Your task to perform on an android device: Open calendar and show me the fourth week of next month Image 0: 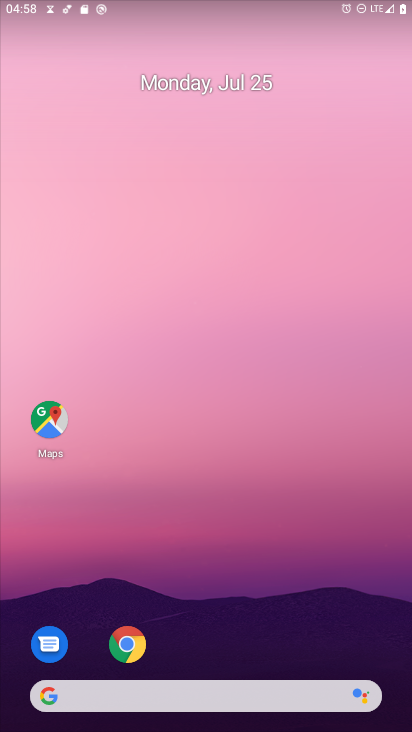
Step 0: press home button
Your task to perform on an android device: Open calendar and show me the fourth week of next month Image 1: 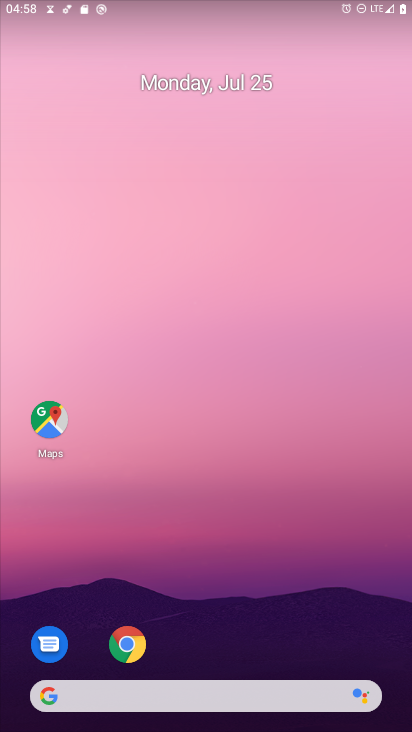
Step 1: drag from (271, 624) to (250, 59)
Your task to perform on an android device: Open calendar and show me the fourth week of next month Image 2: 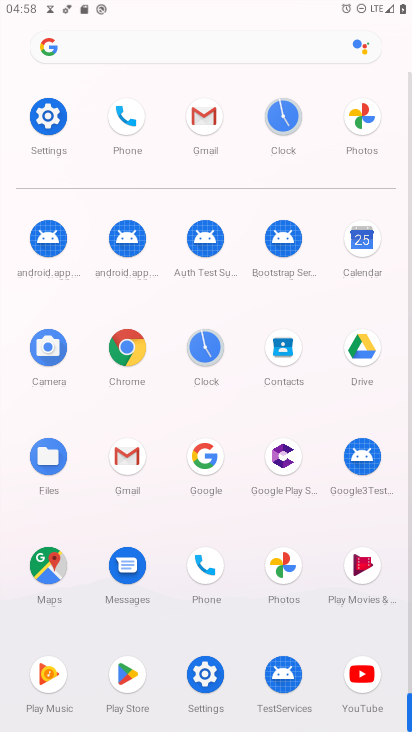
Step 2: click (362, 237)
Your task to perform on an android device: Open calendar and show me the fourth week of next month Image 3: 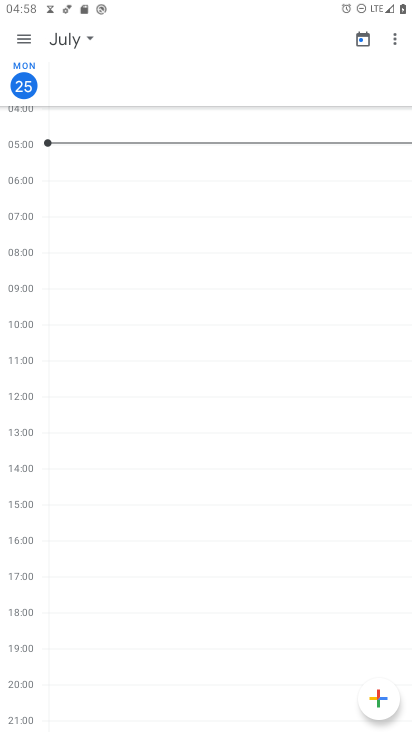
Step 3: click (14, 31)
Your task to perform on an android device: Open calendar and show me the fourth week of next month Image 4: 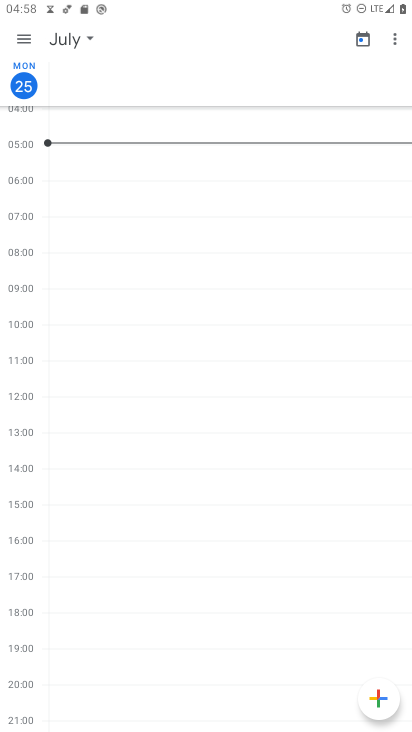
Step 4: click (26, 37)
Your task to perform on an android device: Open calendar and show me the fourth week of next month Image 5: 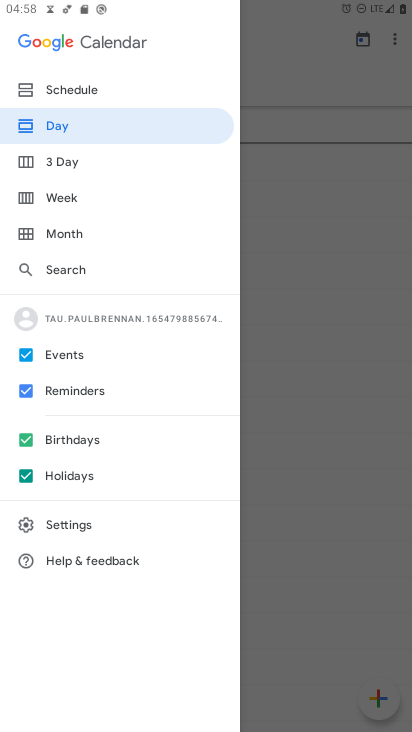
Step 5: click (61, 196)
Your task to perform on an android device: Open calendar and show me the fourth week of next month Image 6: 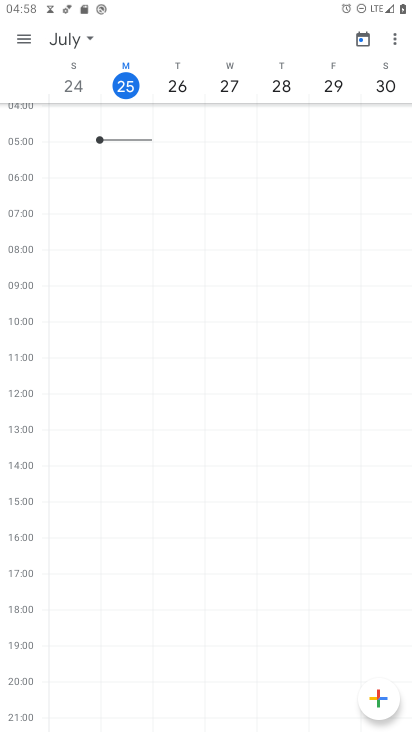
Step 6: task complete